Your task to perform on an android device: Go to Reddit.com Image 0: 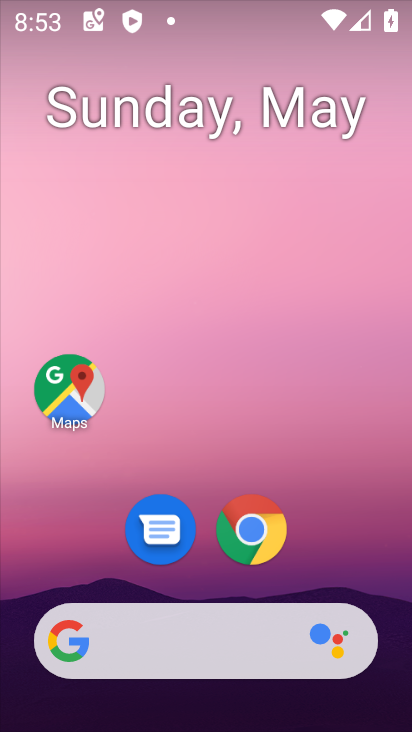
Step 0: click (180, 646)
Your task to perform on an android device: Go to Reddit.com Image 1: 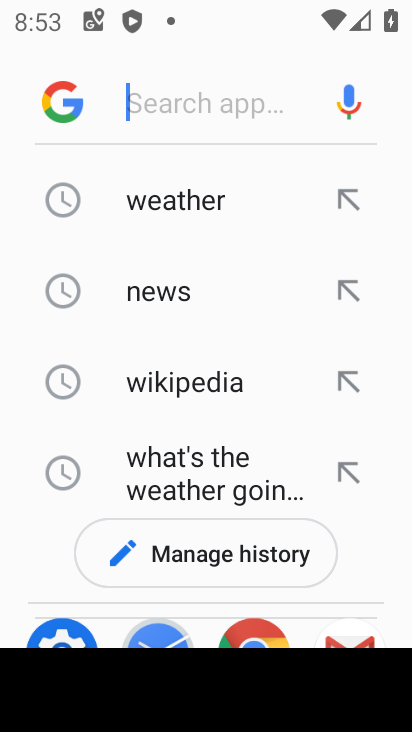
Step 1: task complete